Your task to perform on an android device: turn on the 12-hour format for clock Image 0: 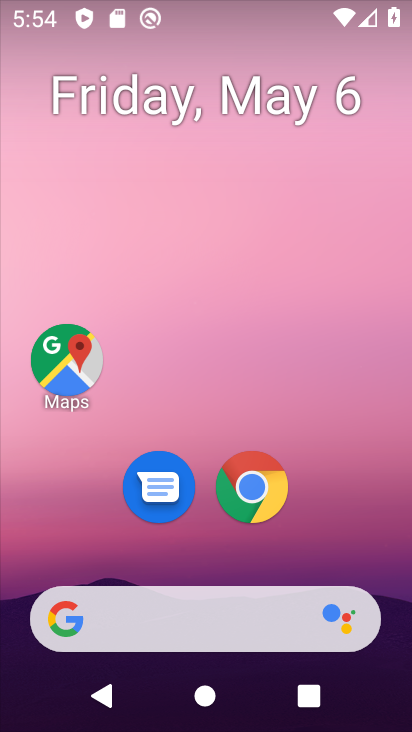
Step 0: drag from (301, 521) to (285, 130)
Your task to perform on an android device: turn on the 12-hour format for clock Image 1: 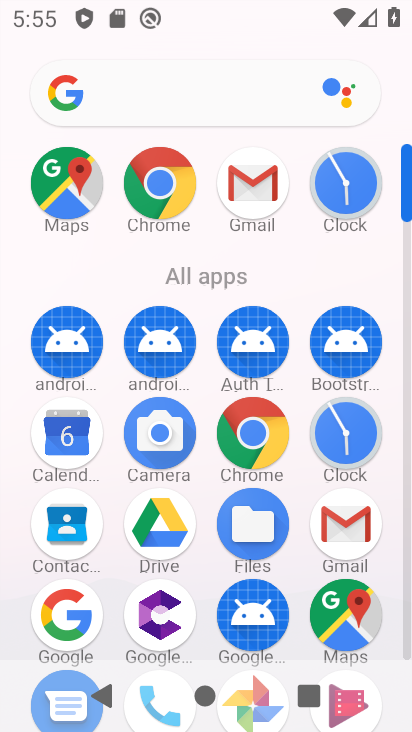
Step 1: click (351, 169)
Your task to perform on an android device: turn on the 12-hour format for clock Image 2: 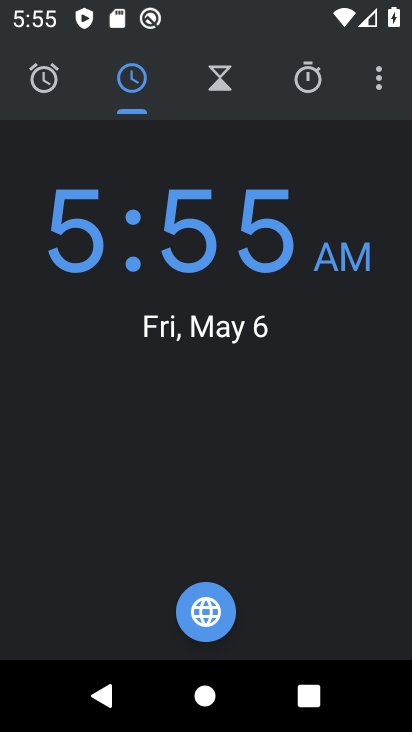
Step 2: click (372, 81)
Your task to perform on an android device: turn on the 12-hour format for clock Image 3: 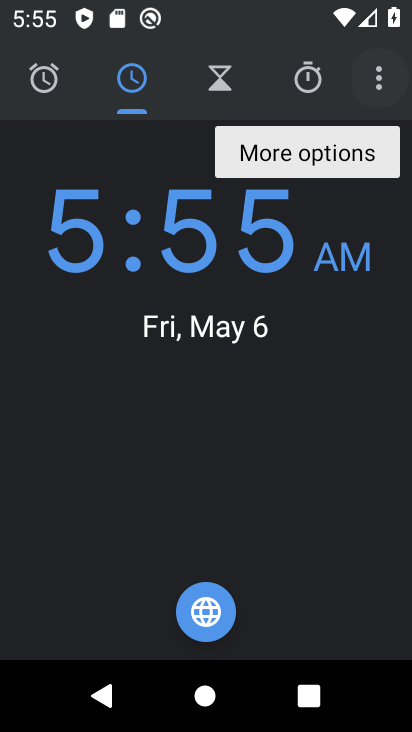
Step 3: click (372, 81)
Your task to perform on an android device: turn on the 12-hour format for clock Image 4: 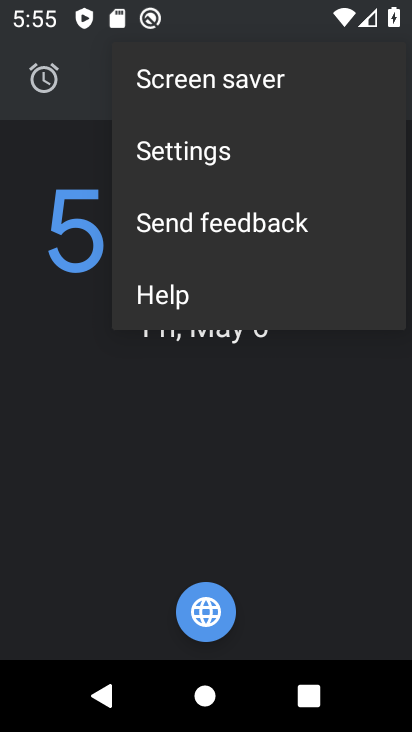
Step 4: click (147, 141)
Your task to perform on an android device: turn on the 12-hour format for clock Image 5: 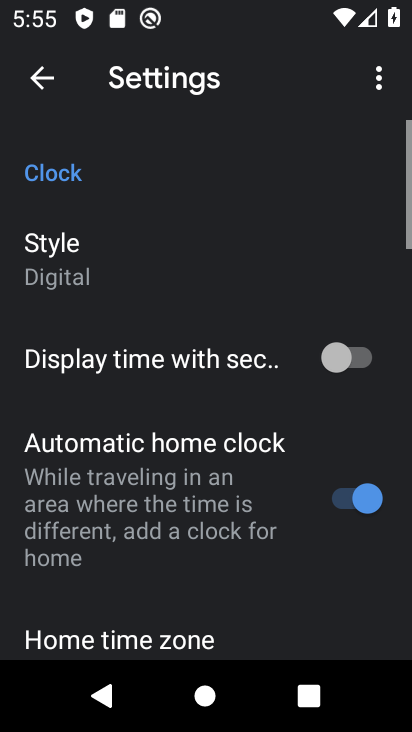
Step 5: drag from (252, 576) to (256, 212)
Your task to perform on an android device: turn on the 12-hour format for clock Image 6: 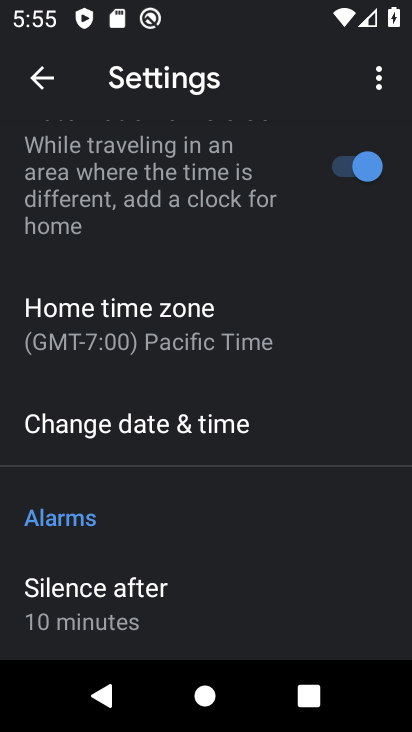
Step 6: click (200, 422)
Your task to perform on an android device: turn on the 12-hour format for clock Image 7: 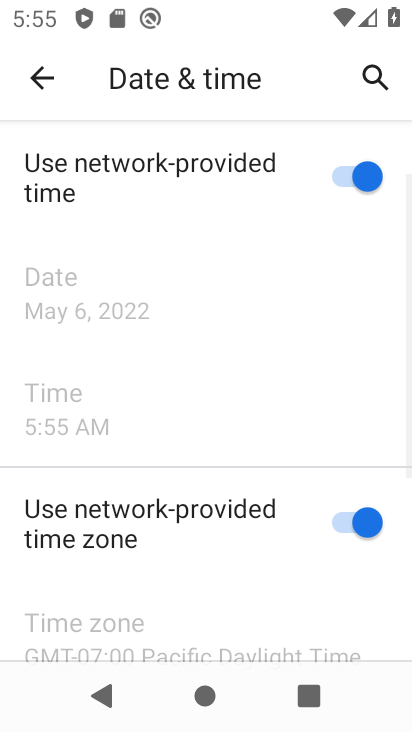
Step 7: drag from (248, 571) to (245, 256)
Your task to perform on an android device: turn on the 12-hour format for clock Image 8: 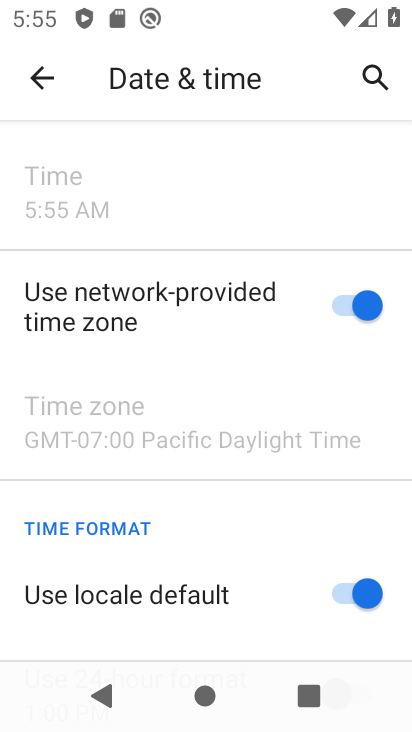
Step 8: drag from (307, 602) to (296, 261)
Your task to perform on an android device: turn on the 12-hour format for clock Image 9: 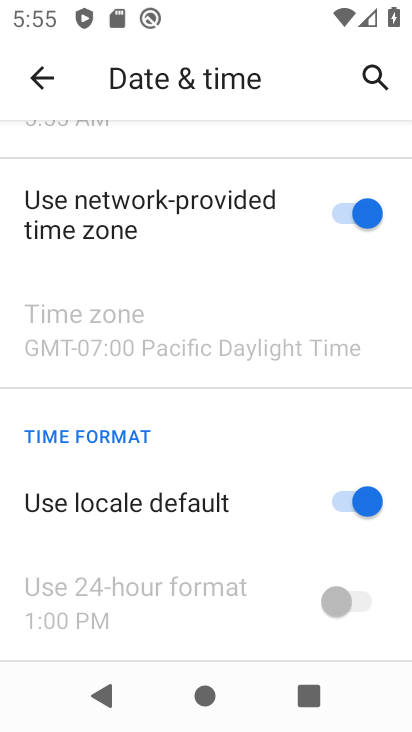
Step 9: click (355, 499)
Your task to perform on an android device: turn on the 12-hour format for clock Image 10: 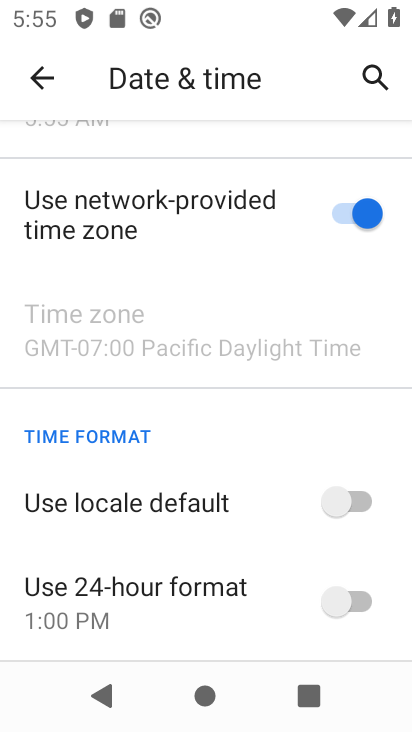
Step 10: click (370, 498)
Your task to perform on an android device: turn on the 12-hour format for clock Image 11: 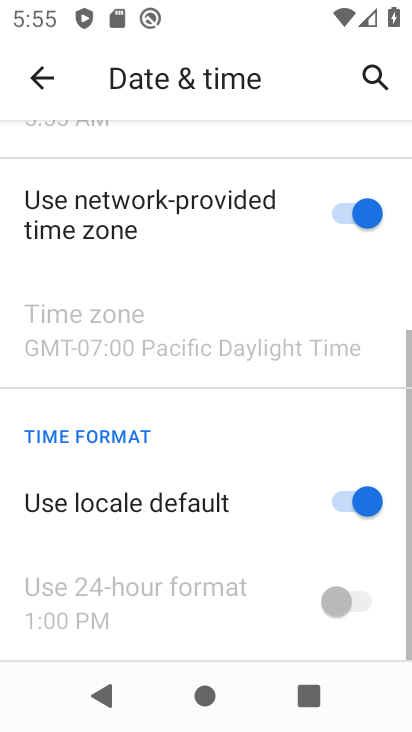
Step 11: click (334, 497)
Your task to perform on an android device: turn on the 12-hour format for clock Image 12: 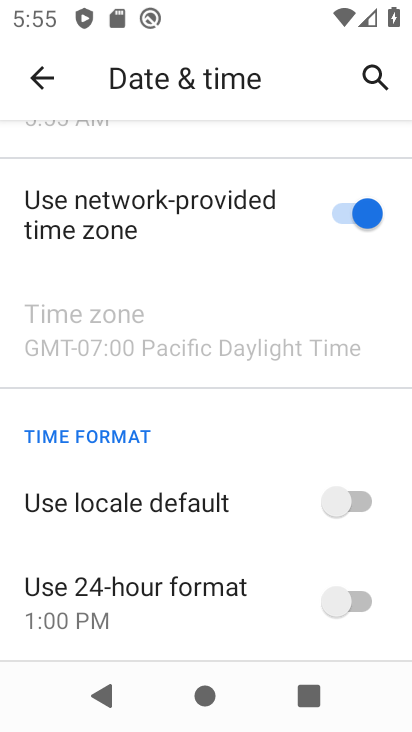
Step 12: click (334, 492)
Your task to perform on an android device: turn on the 12-hour format for clock Image 13: 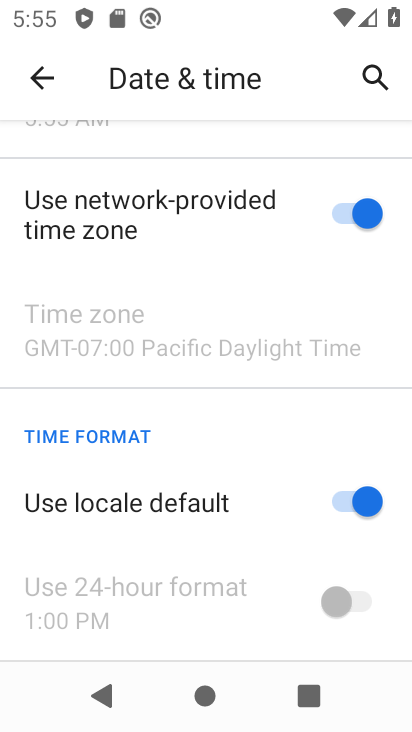
Step 13: task complete